Your task to perform on an android device: toggle data saver in the chrome app Image 0: 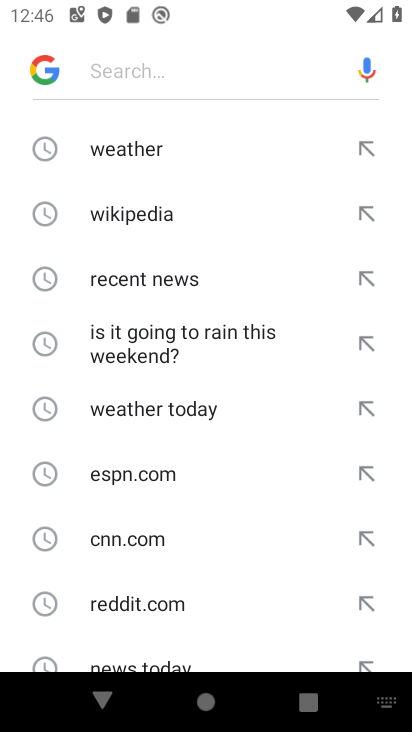
Step 0: press home button
Your task to perform on an android device: toggle data saver in the chrome app Image 1: 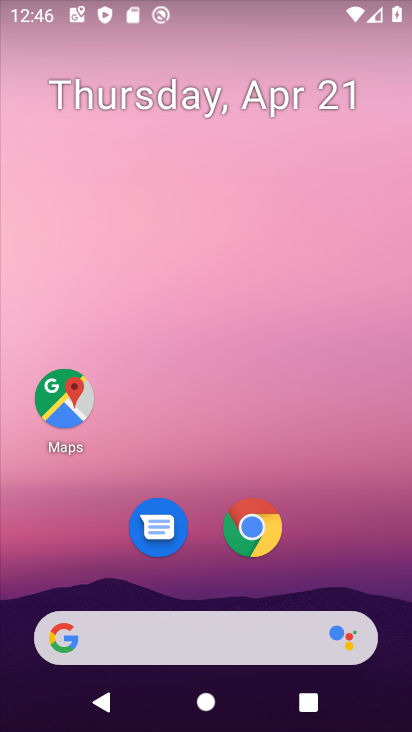
Step 1: drag from (349, 538) to (355, 83)
Your task to perform on an android device: toggle data saver in the chrome app Image 2: 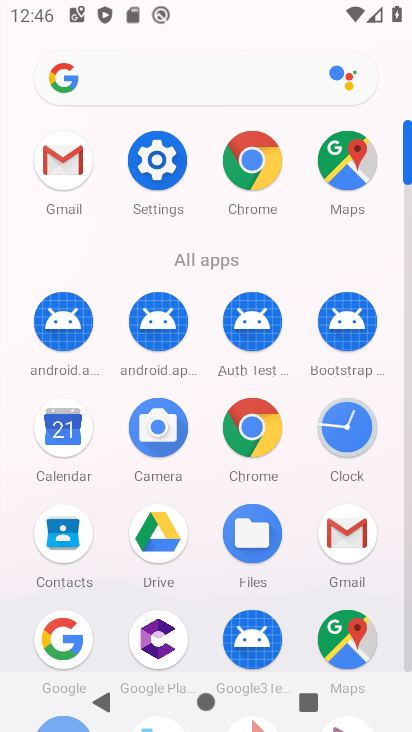
Step 2: click (242, 424)
Your task to perform on an android device: toggle data saver in the chrome app Image 3: 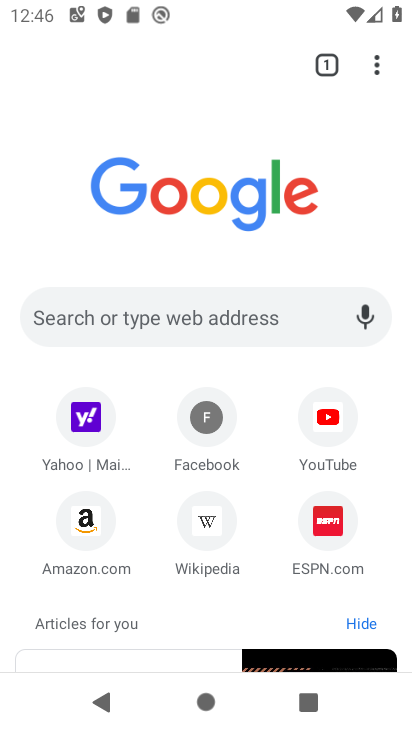
Step 3: click (378, 69)
Your task to perform on an android device: toggle data saver in the chrome app Image 4: 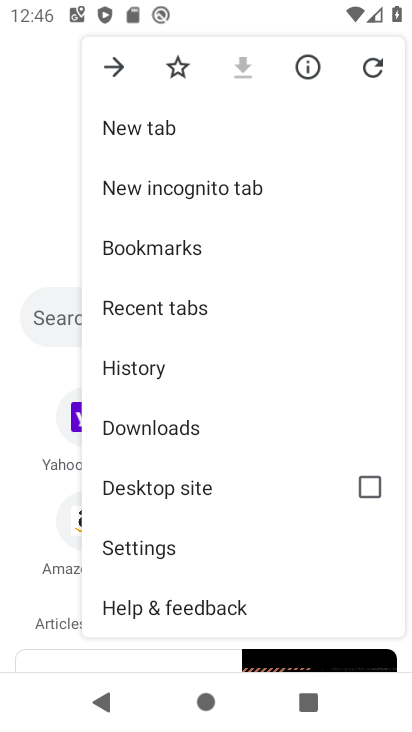
Step 4: drag from (290, 538) to (307, 332)
Your task to perform on an android device: toggle data saver in the chrome app Image 5: 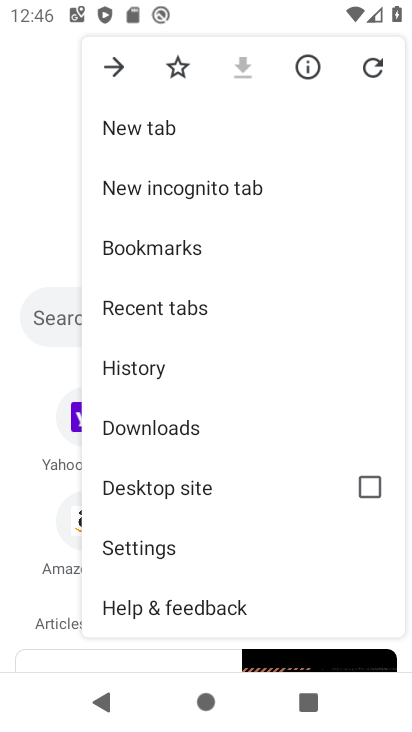
Step 5: click (162, 551)
Your task to perform on an android device: toggle data saver in the chrome app Image 6: 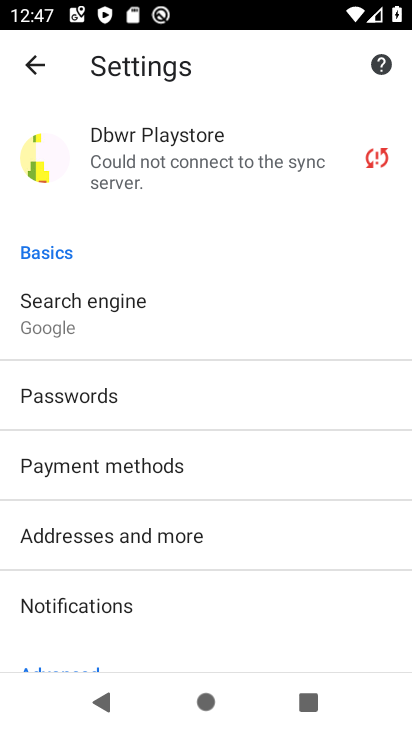
Step 6: drag from (242, 581) to (262, 451)
Your task to perform on an android device: toggle data saver in the chrome app Image 7: 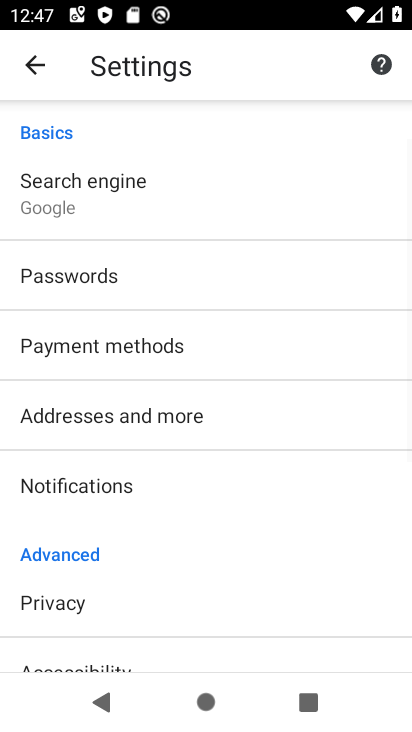
Step 7: drag from (286, 565) to (292, 421)
Your task to perform on an android device: toggle data saver in the chrome app Image 8: 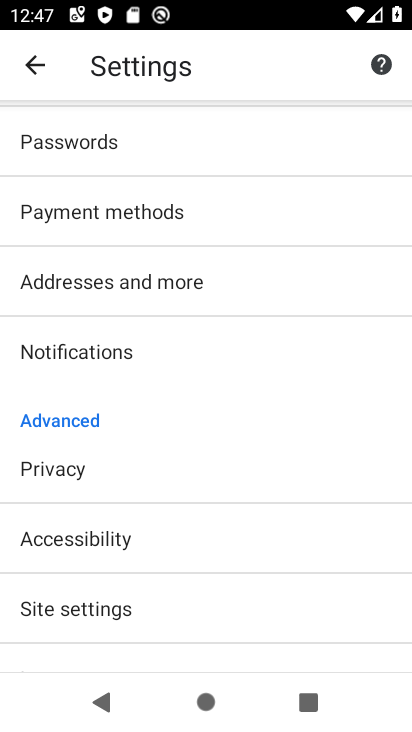
Step 8: drag from (318, 604) to (336, 445)
Your task to perform on an android device: toggle data saver in the chrome app Image 9: 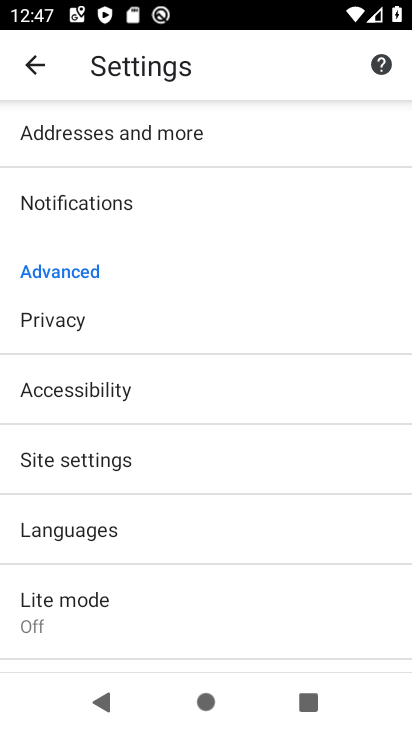
Step 9: drag from (325, 606) to (320, 447)
Your task to perform on an android device: toggle data saver in the chrome app Image 10: 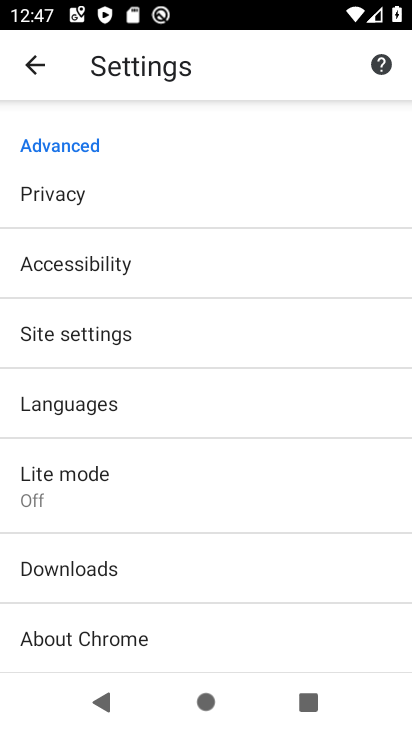
Step 10: drag from (323, 615) to (320, 462)
Your task to perform on an android device: toggle data saver in the chrome app Image 11: 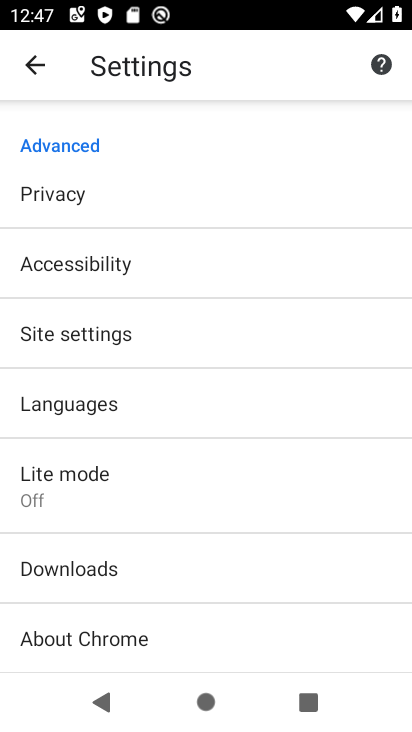
Step 11: click (152, 472)
Your task to perform on an android device: toggle data saver in the chrome app Image 12: 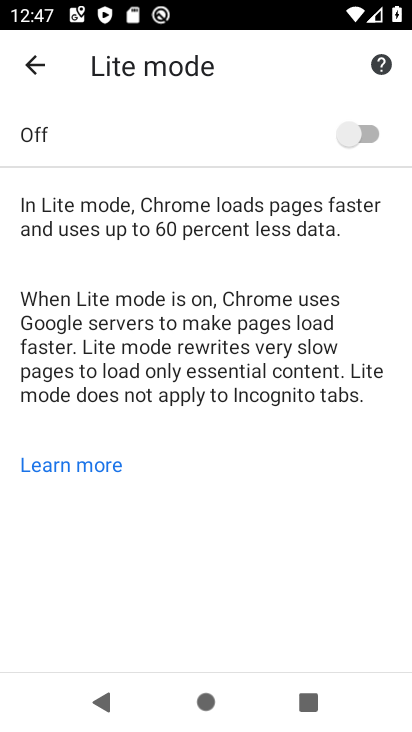
Step 12: click (342, 131)
Your task to perform on an android device: toggle data saver in the chrome app Image 13: 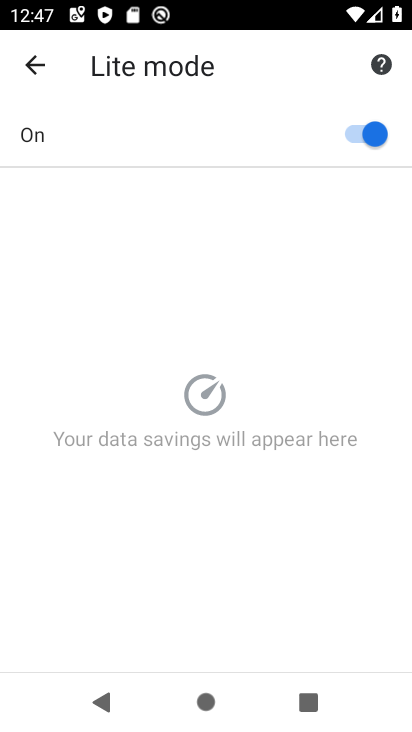
Step 13: task complete